Your task to perform on an android device: Open ESPN.com Image 0: 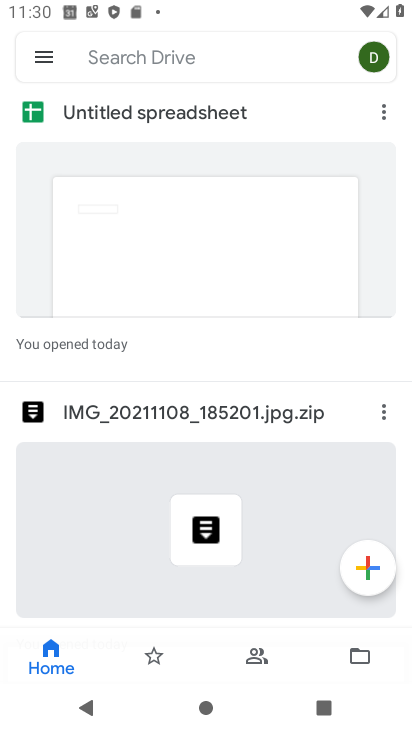
Step 0: press back button
Your task to perform on an android device: Open ESPN.com Image 1: 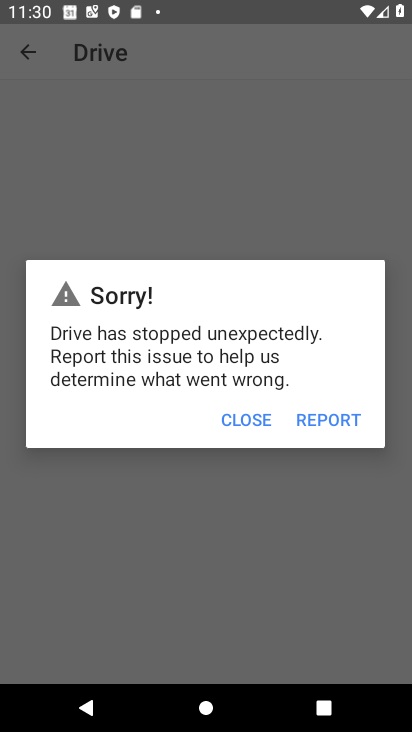
Step 1: press home button
Your task to perform on an android device: Open ESPN.com Image 2: 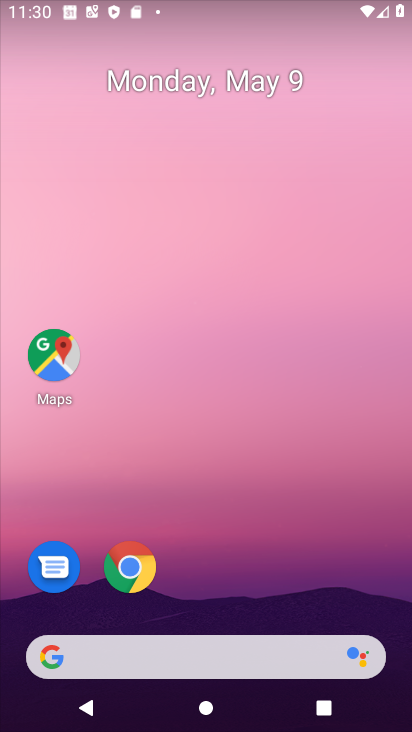
Step 2: click (139, 563)
Your task to perform on an android device: Open ESPN.com Image 3: 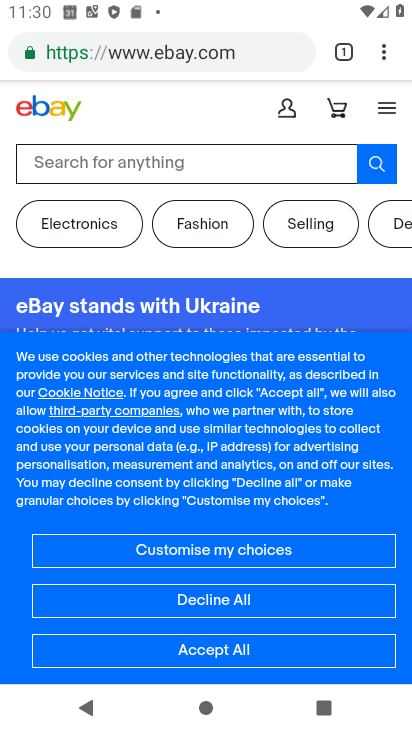
Step 3: click (177, 61)
Your task to perform on an android device: Open ESPN.com Image 4: 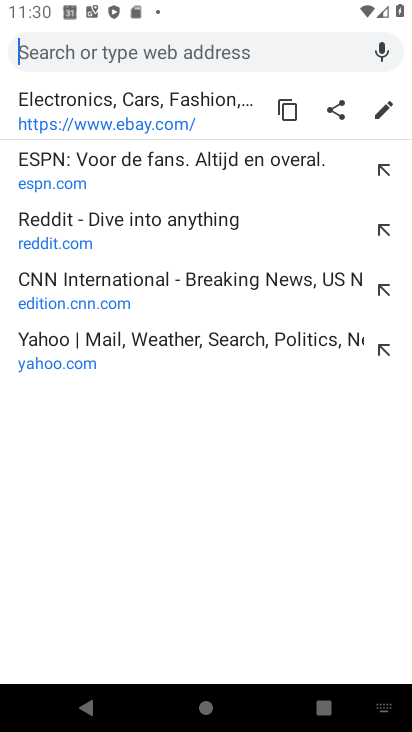
Step 4: click (93, 178)
Your task to perform on an android device: Open ESPN.com Image 5: 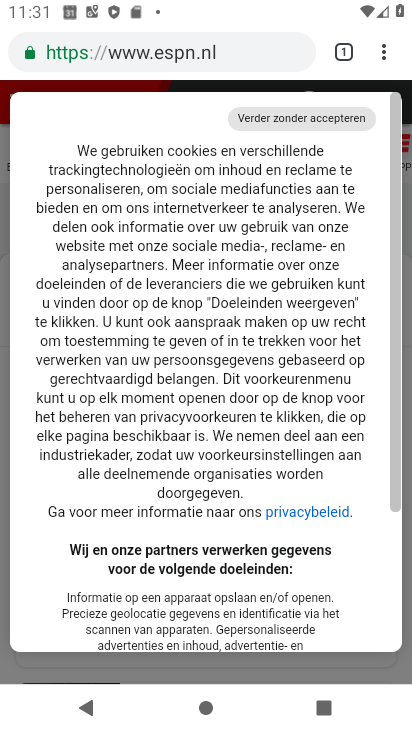
Step 5: task complete